Your task to perform on an android device: show emergency info Image 0: 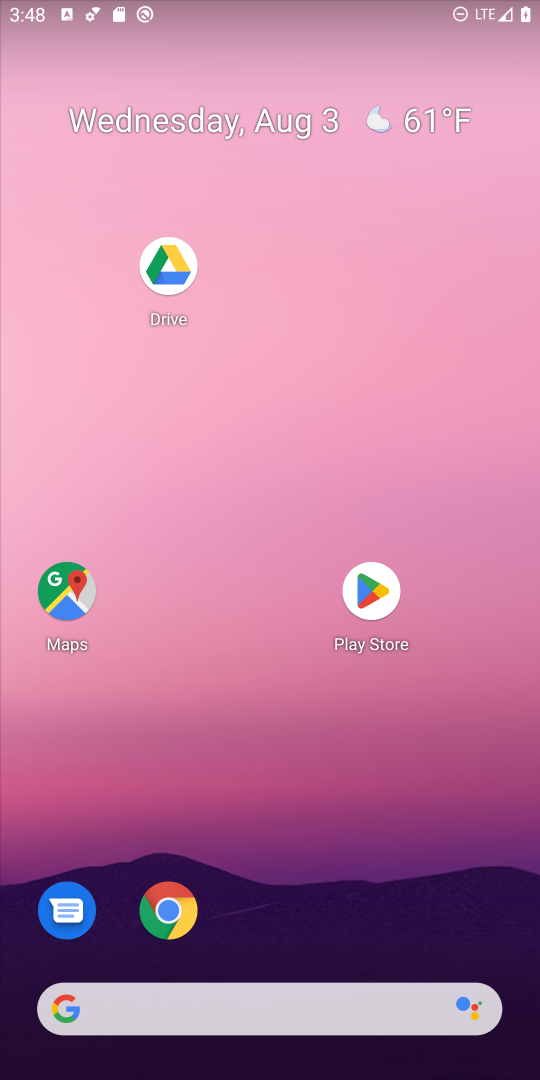
Step 0: drag from (303, 901) to (324, 92)
Your task to perform on an android device: show emergency info Image 1: 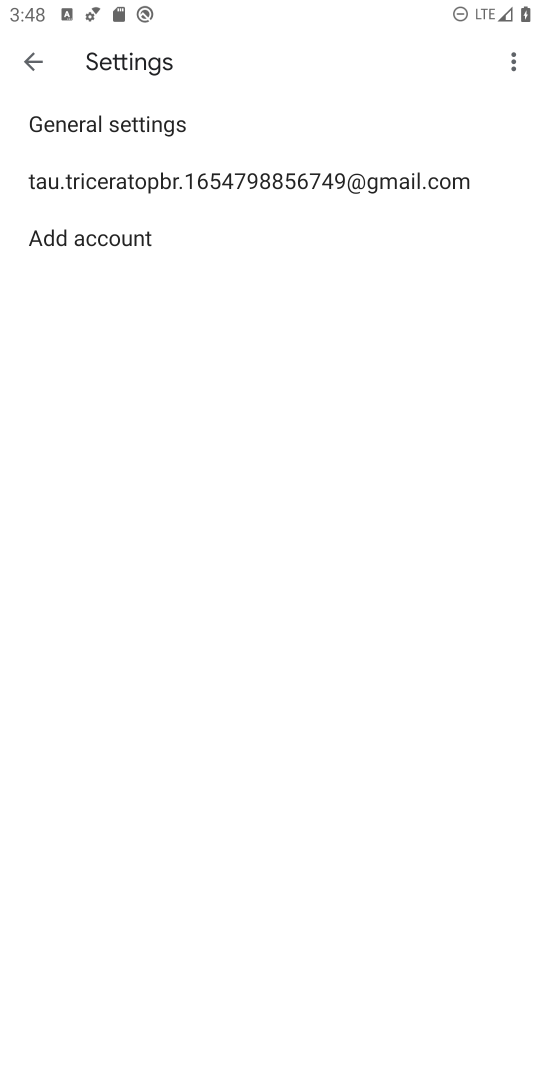
Step 1: press home button
Your task to perform on an android device: show emergency info Image 2: 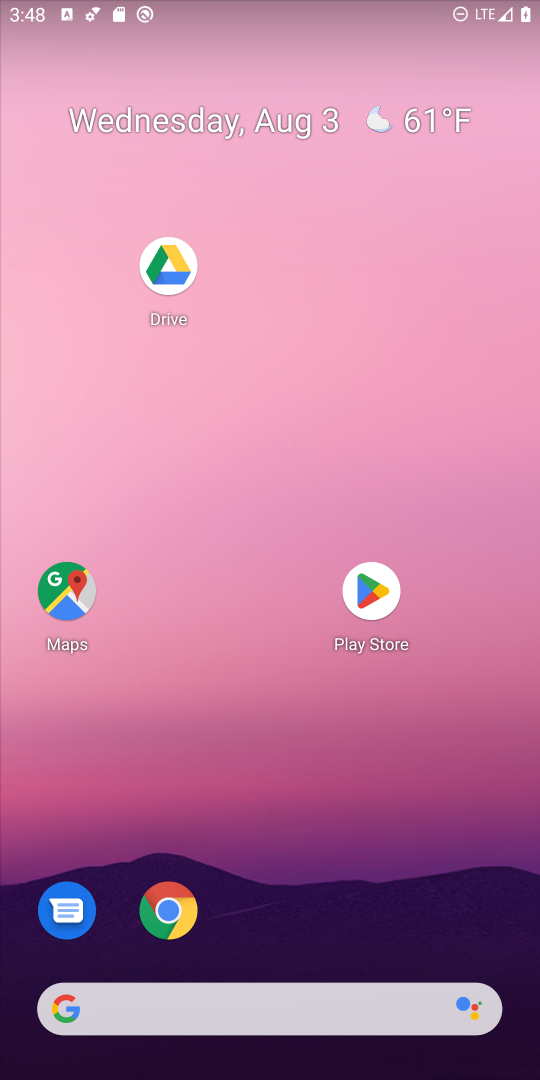
Step 2: drag from (135, 873) to (256, 37)
Your task to perform on an android device: show emergency info Image 3: 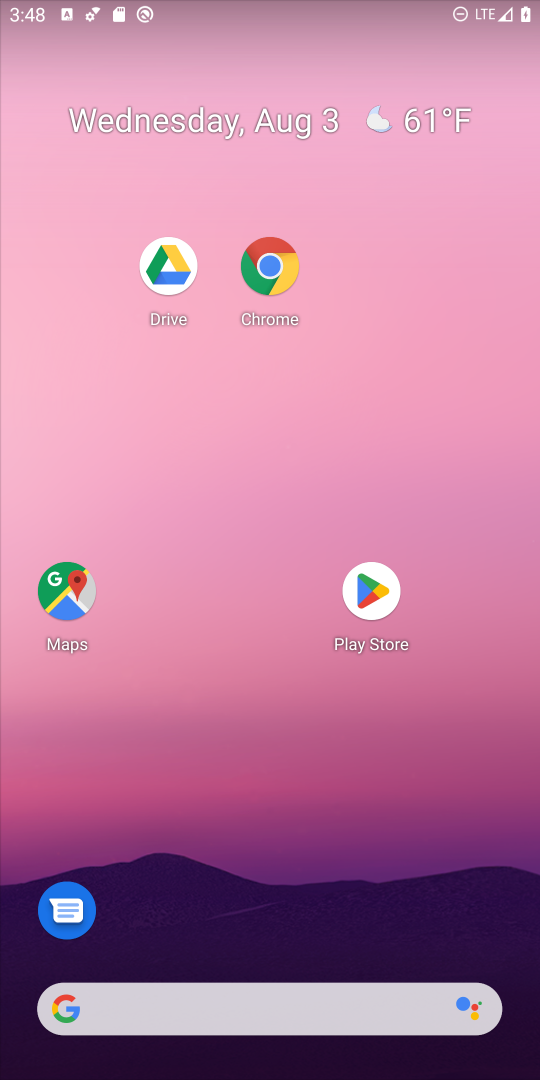
Step 3: click (377, 475)
Your task to perform on an android device: show emergency info Image 4: 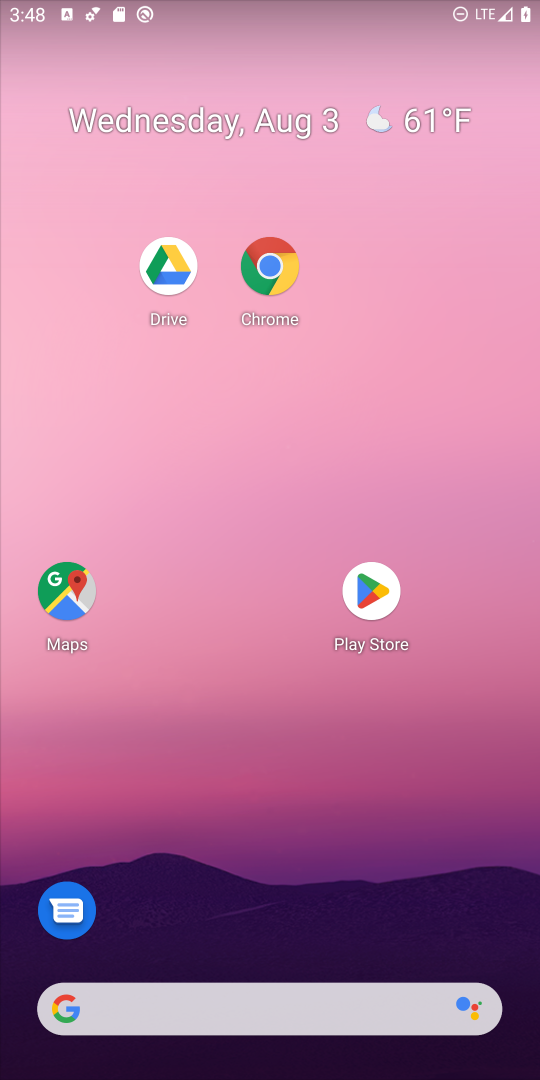
Step 4: drag from (273, 1012) to (421, 118)
Your task to perform on an android device: show emergency info Image 5: 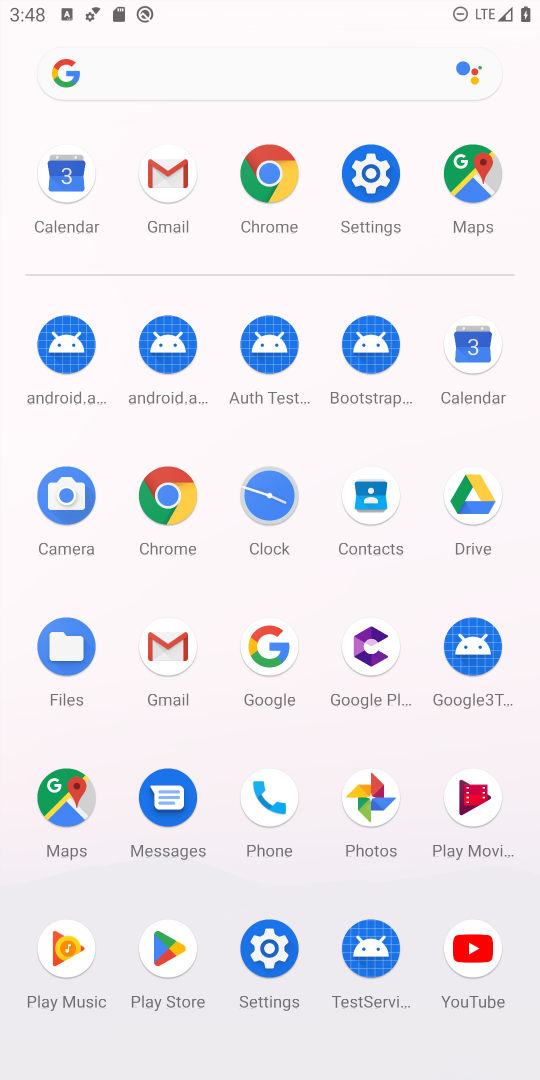
Step 5: click (380, 178)
Your task to perform on an android device: show emergency info Image 6: 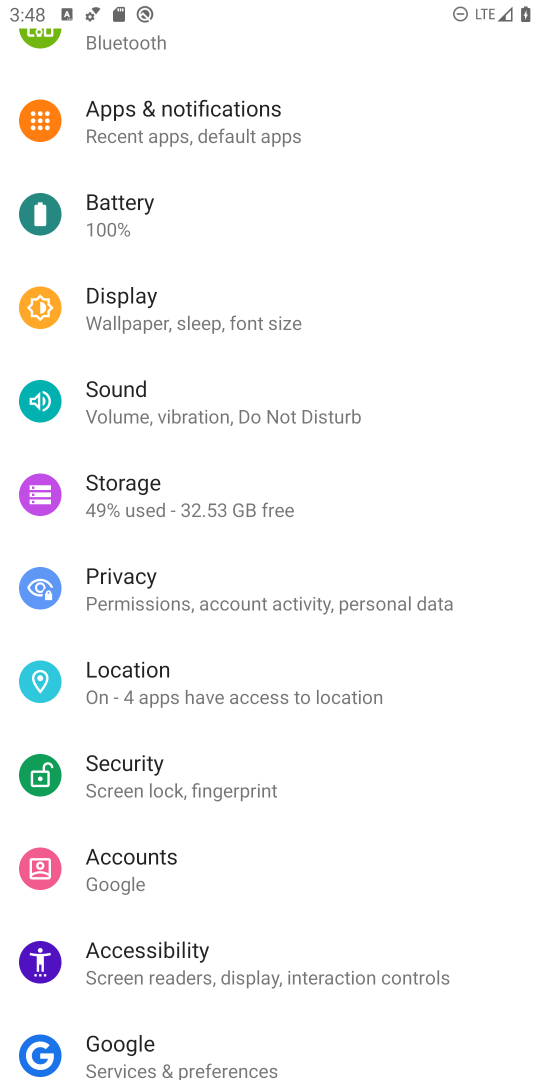
Step 6: drag from (310, 1023) to (480, 320)
Your task to perform on an android device: show emergency info Image 7: 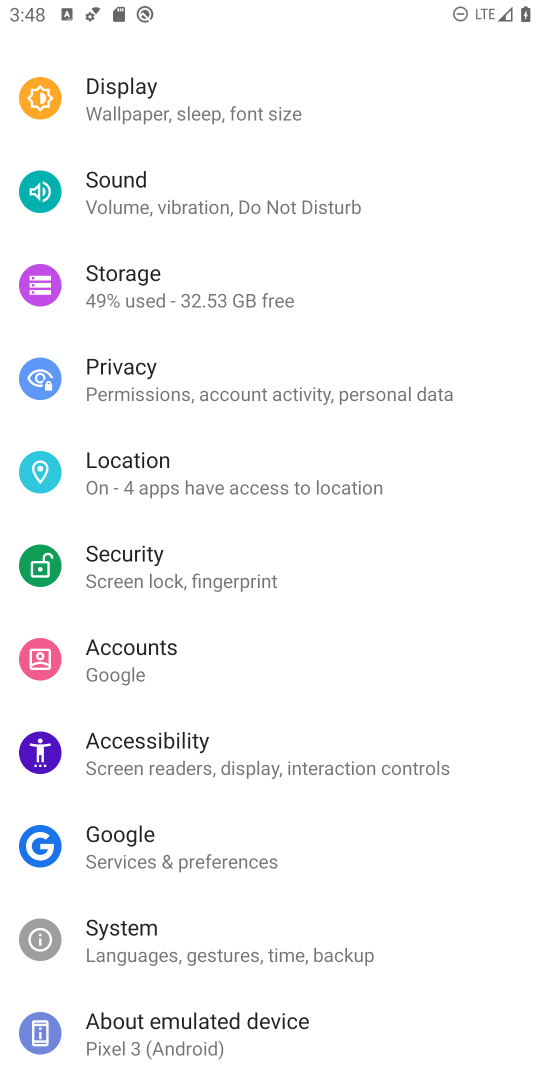
Step 7: click (259, 1032)
Your task to perform on an android device: show emergency info Image 8: 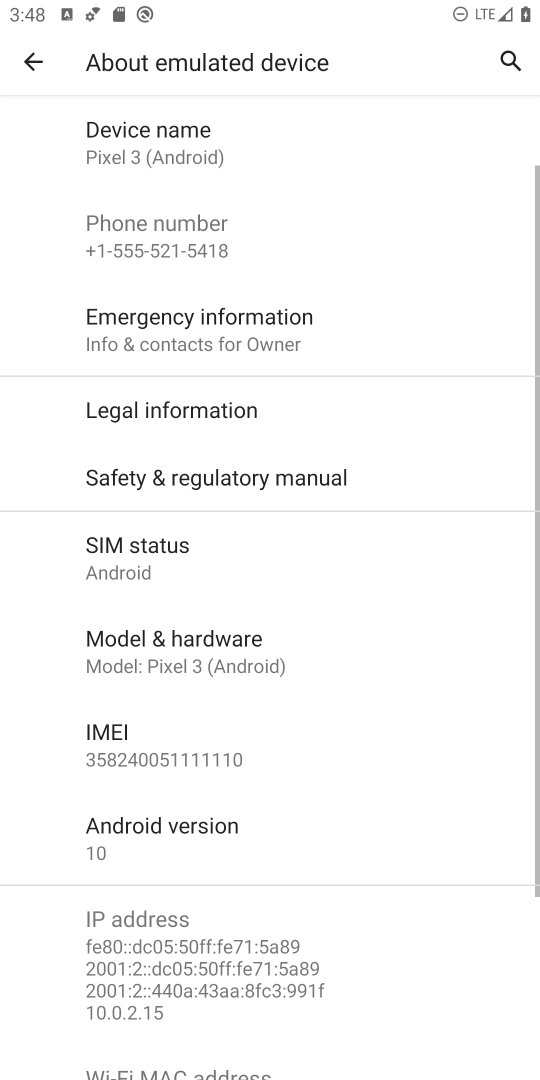
Step 8: click (318, 327)
Your task to perform on an android device: show emergency info Image 9: 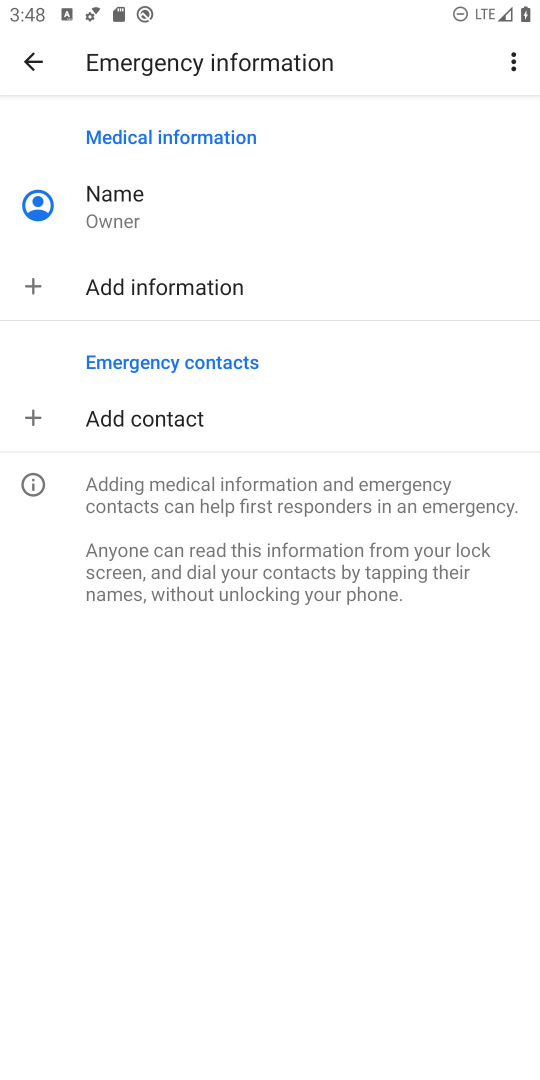
Step 9: task complete